Your task to perform on an android device: set default search engine in the chrome app Image 0: 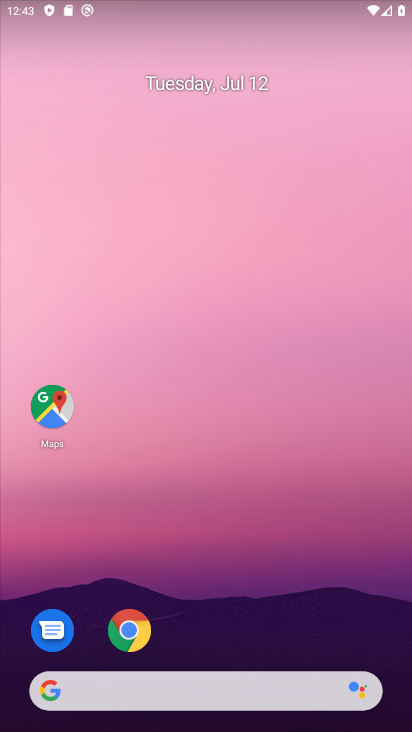
Step 0: click (122, 632)
Your task to perform on an android device: set default search engine in the chrome app Image 1: 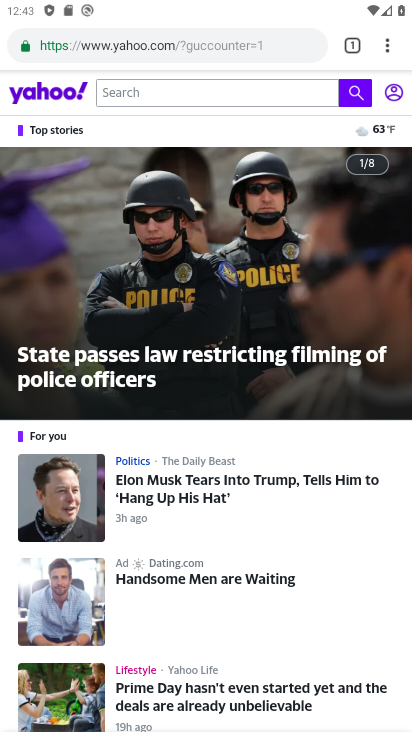
Step 1: click (387, 47)
Your task to perform on an android device: set default search engine in the chrome app Image 2: 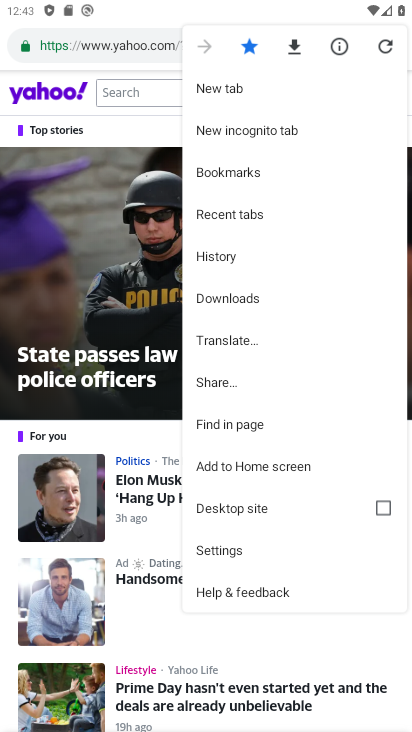
Step 2: click (228, 542)
Your task to perform on an android device: set default search engine in the chrome app Image 3: 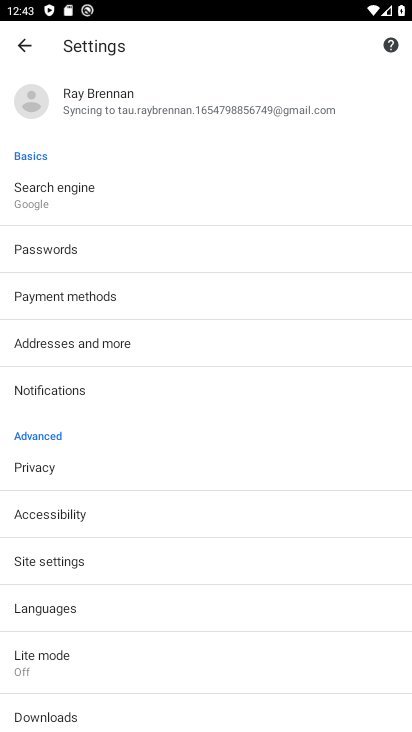
Step 3: click (62, 182)
Your task to perform on an android device: set default search engine in the chrome app Image 4: 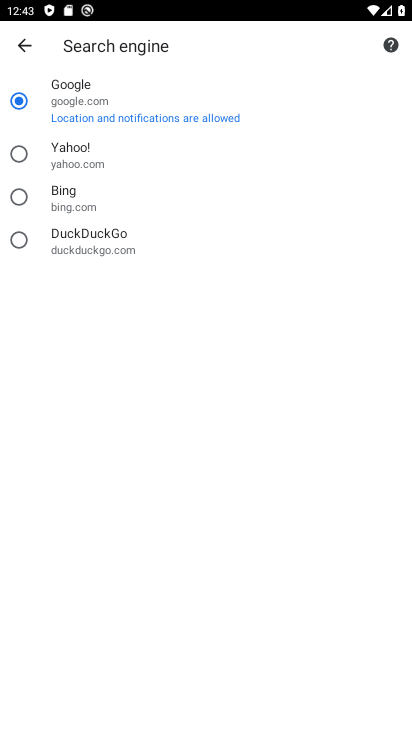
Step 4: click (17, 154)
Your task to perform on an android device: set default search engine in the chrome app Image 5: 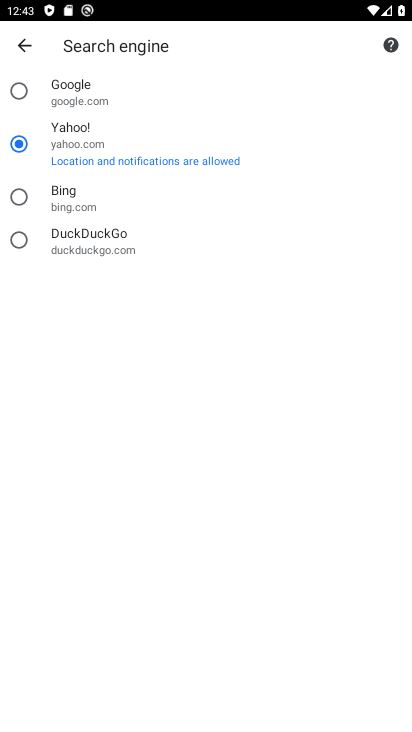
Step 5: task complete